Your task to perform on an android device: Open Chrome and go to settings Image 0: 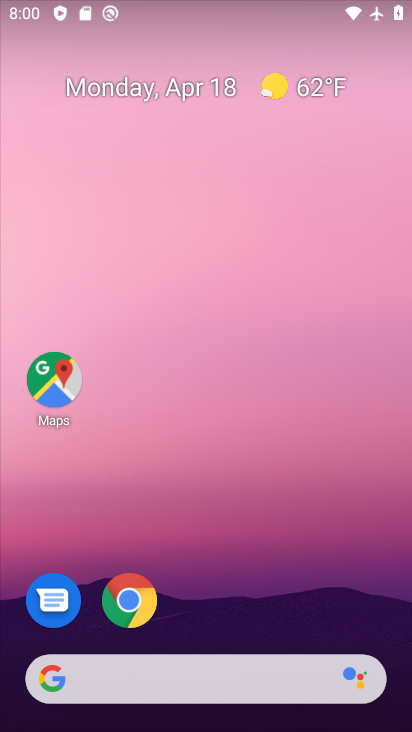
Step 0: click (120, 591)
Your task to perform on an android device: Open Chrome and go to settings Image 1: 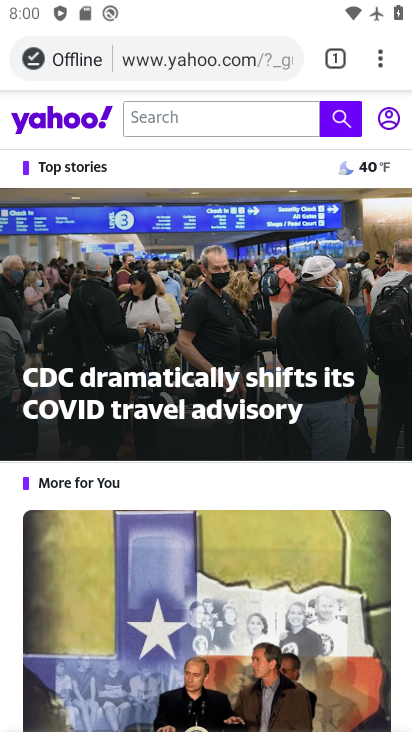
Step 1: click (379, 61)
Your task to perform on an android device: Open Chrome and go to settings Image 2: 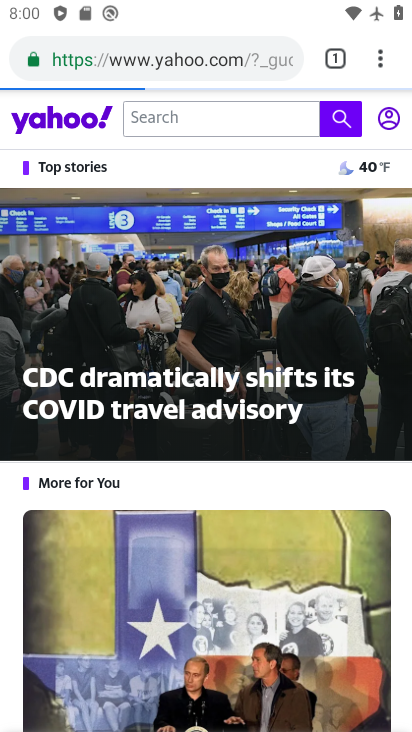
Step 2: click (376, 54)
Your task to perform on an android device: Open Chrome and go to settings Image 3: 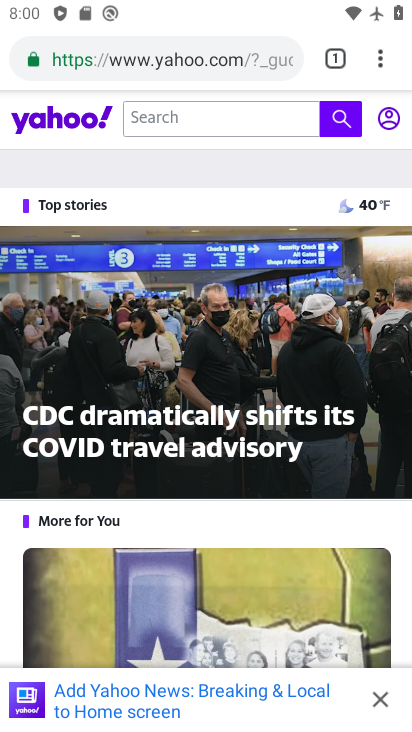
Step 3: click (379, 66)
Your task to perform on an android device: Open Chrome and go to settings Image 4: 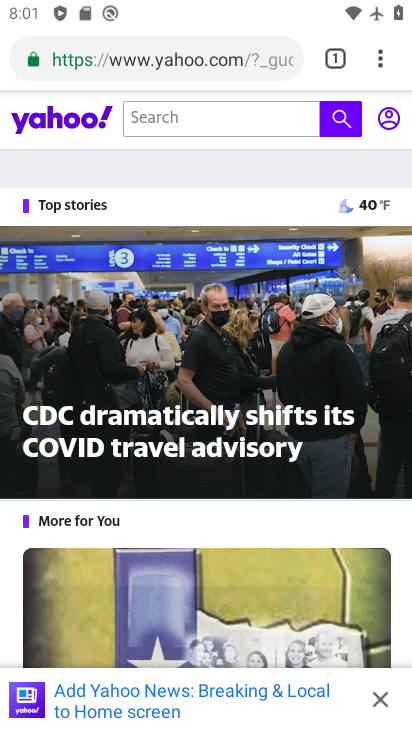
Step 4: click (379, 66)
Your task to perform on an android device: Open Chrome and go to settings Image 5: 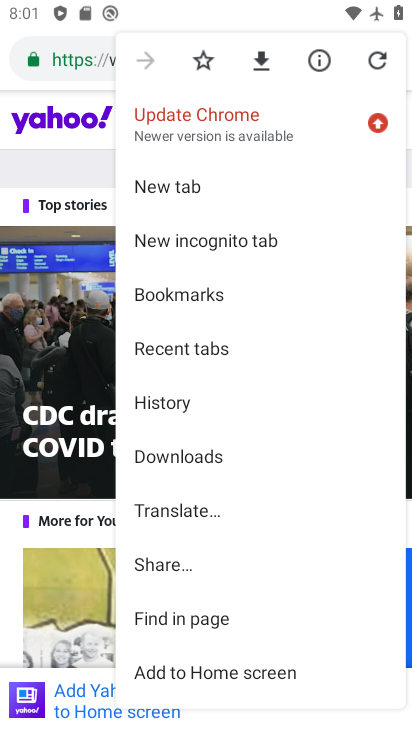
Step 5: drag from (267, 572) to (254, 132)
Your task to perform on an android device: Open Chrome and go to settings Image 6: 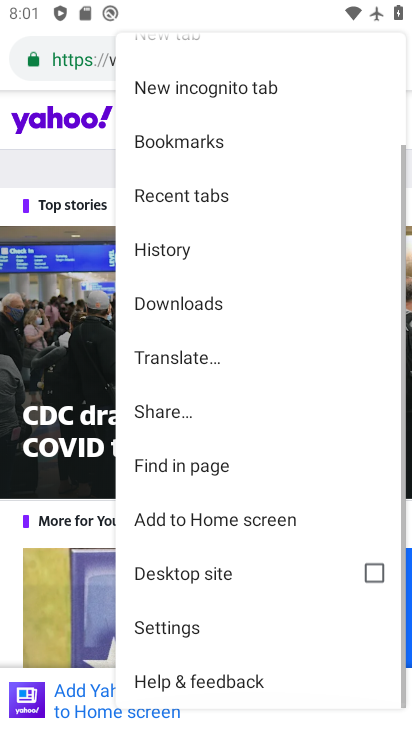
Step 6: click (174, 625)
Your task to perform on an android device: Open Chrome and go to settings Image 7: 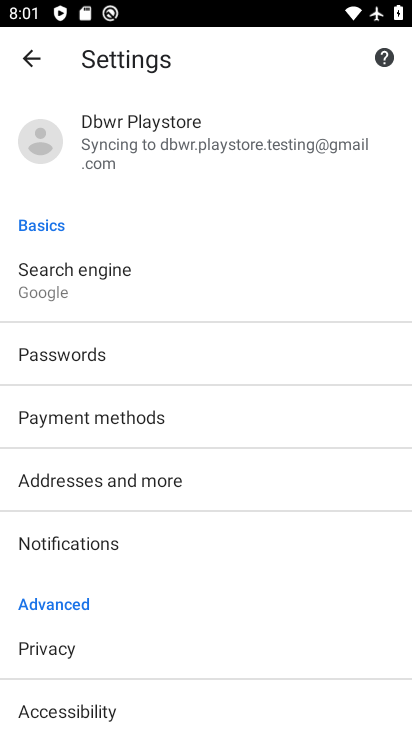
Step 7: task complete